Your task to perform on an android device: Open Google Chrome and open the bookmarks view Image 0: 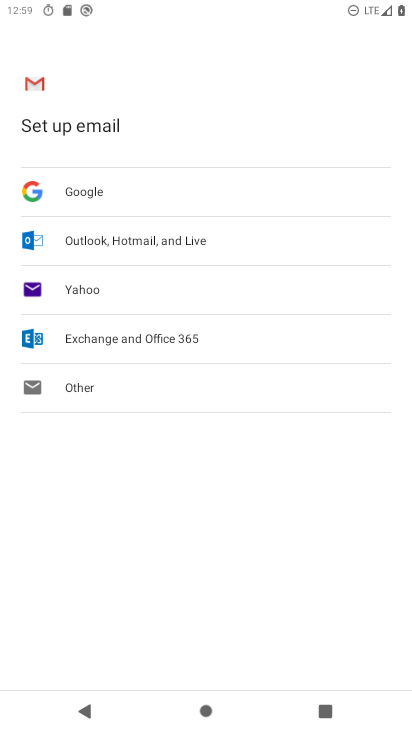
Step 0: press home button
Your task to perform on an android device: Open Google Chrome and open the bookmarks view Image 1: 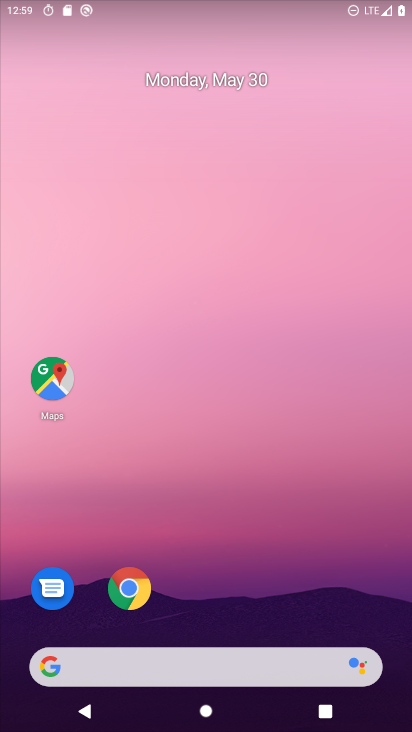
Step 1: drag from (263, 577) to (324, 248)
Your task to perform on an android device: Open Google Chrome and open the bookmarks view Image 2: 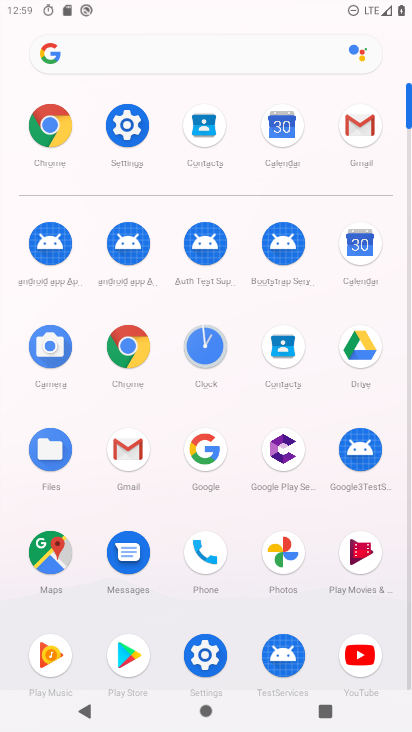
Step 2: click (134, 366)
Your task to perform on an android device: Open Google Chrome and open the bookmarks view Image 3: 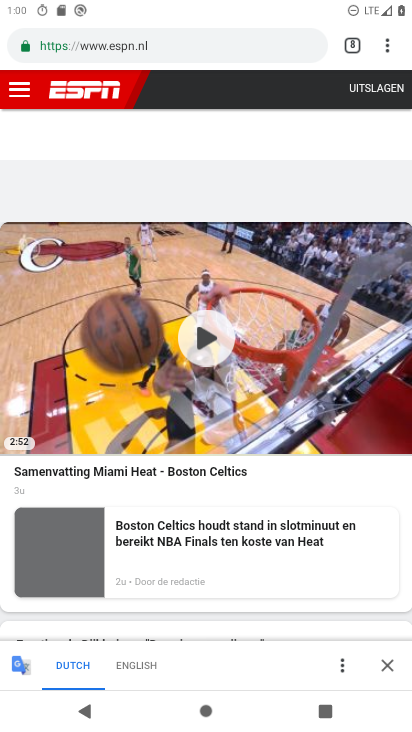
Step 3: click (388, 52)
Your task to perform on an android device: Open Google Chrome and open the bookmarks view Image 4: 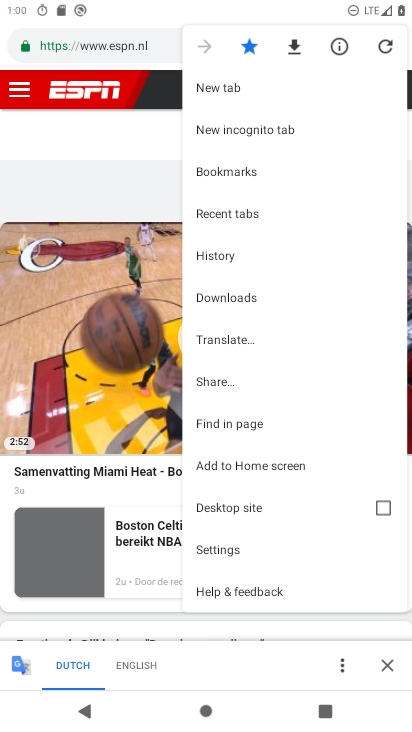
Step 4: click (270, 177)
Your task to perform on an android device: Open Google Chrome and open the bookmarks view Image 5: 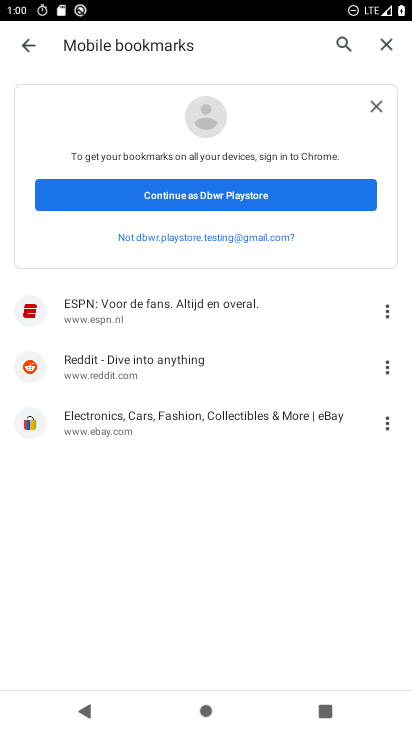
Step 5: click (223, 329)
Your task to perform on an android device: Open Google Chrome and open the bookmarks view Image 6: 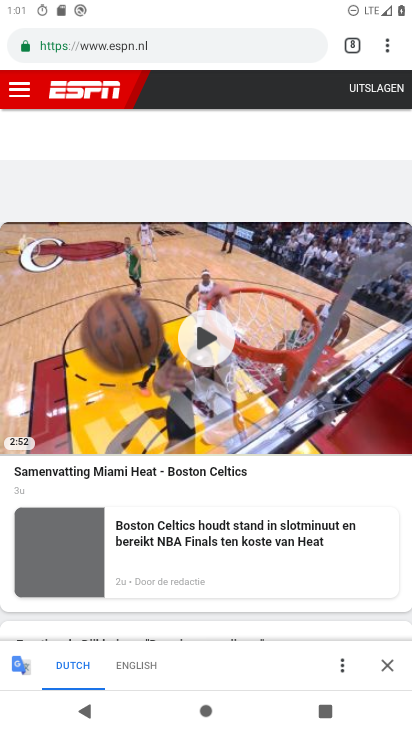
Step 6: task complete